Your task to perform on an android device: refresh tabs in the chrome app Image 0: 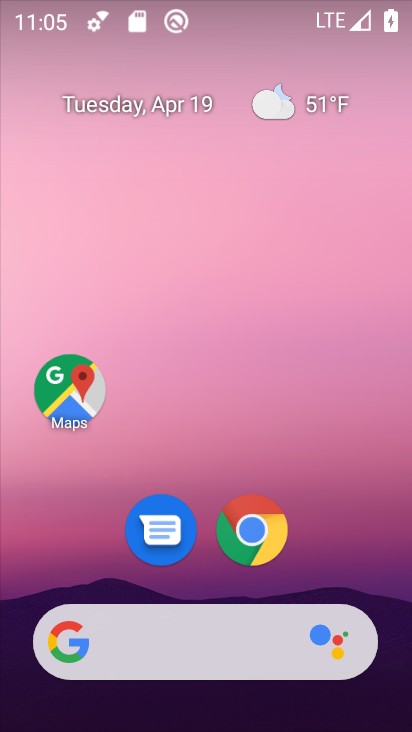
Step 0: drag from (161, 621) to (345, 93)
Your task to perform on an android device: refresh tabs in the chrome app Image 1: 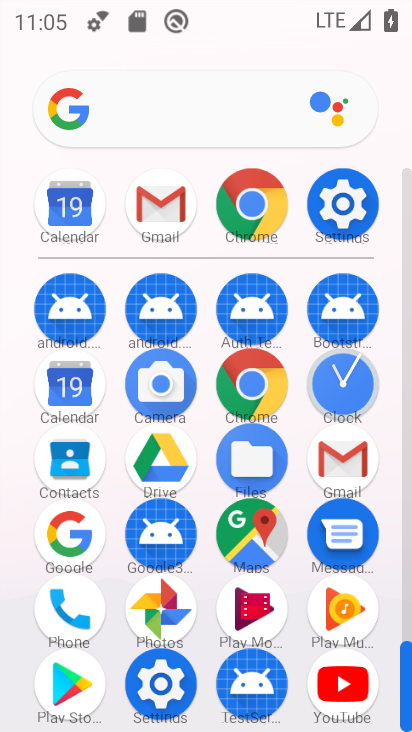
Step 1: click (259, 218)
Your task to perform on an android device: refresh tabs in the chrome app Image 2: 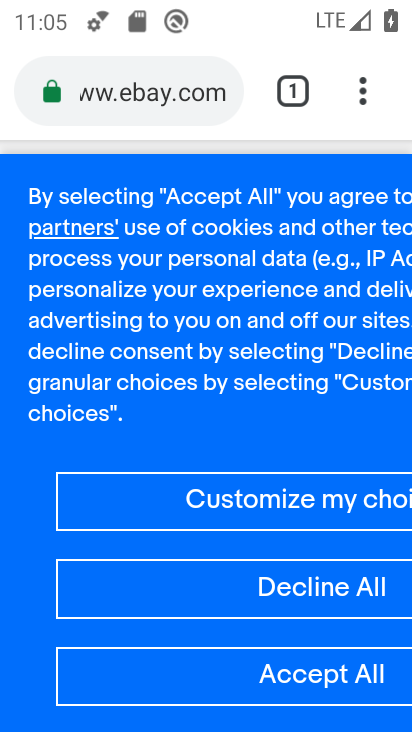
Step 2: click (362, 100)
Your task to perform on an android device: refresh tabs in the chrome app Image 3: 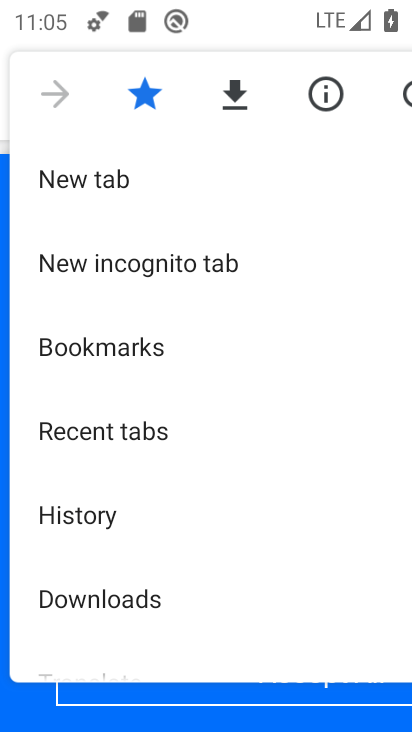
Step 3: click (406, 93)
Your task to perform on an android device: refresh tabs in the chrome app Image 4: 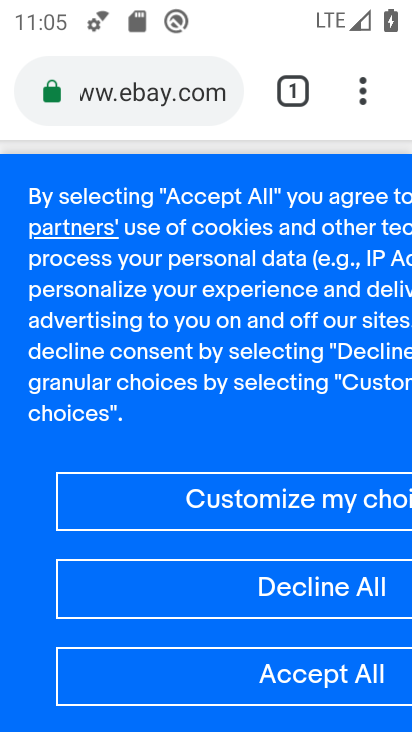
Step 4: task complete